Your task to perform on an android device: Search for Italian restaurants on Maps Image 0: 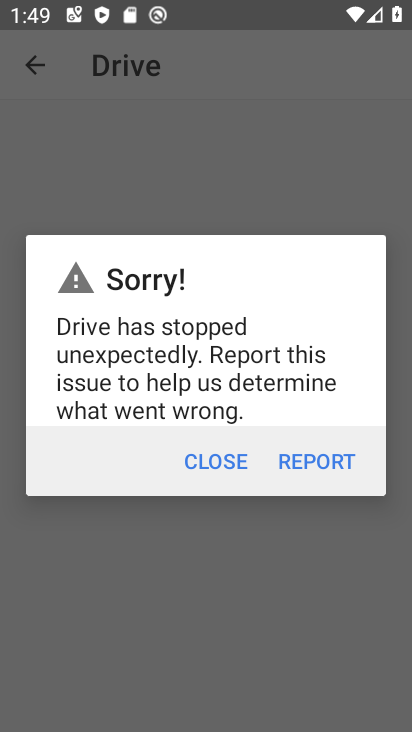
Step 0: press home button
Your task to perform on an android device: Search for Italian restaurants on Maps Image 1: 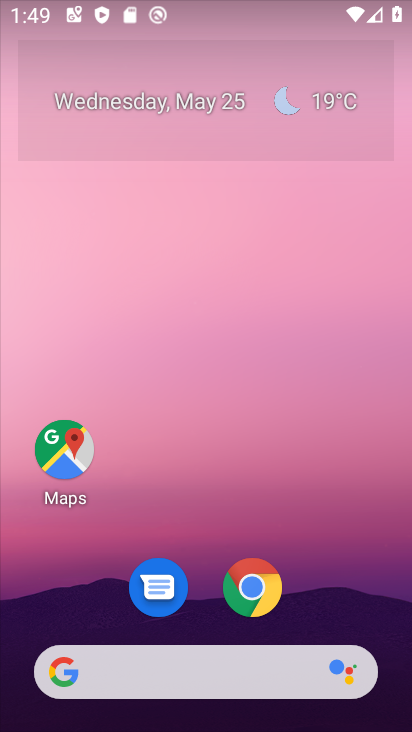
Step 1: click (73, 452)
Your task to perform on an android device: Search for Italian restaurants on Maps Image 2: 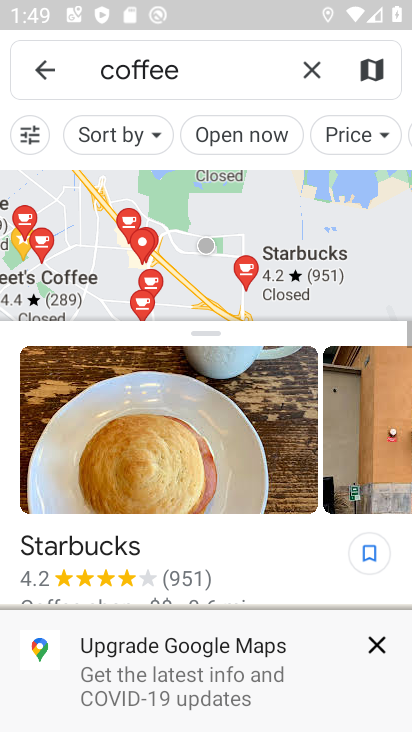
Step 2: click (303, 78)
Your task to perform on an android device: Search for Italian restaurants on Maps Image 3: 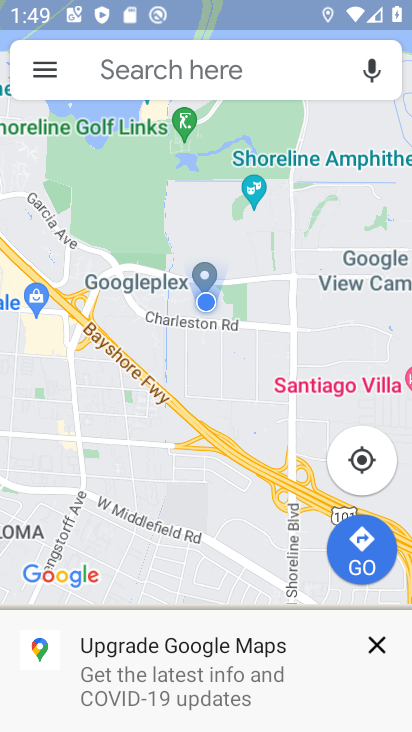
Step 3: click (208, 89)
Your task to perform on an android device: Search for Italian restaurants on Maps Image 4: 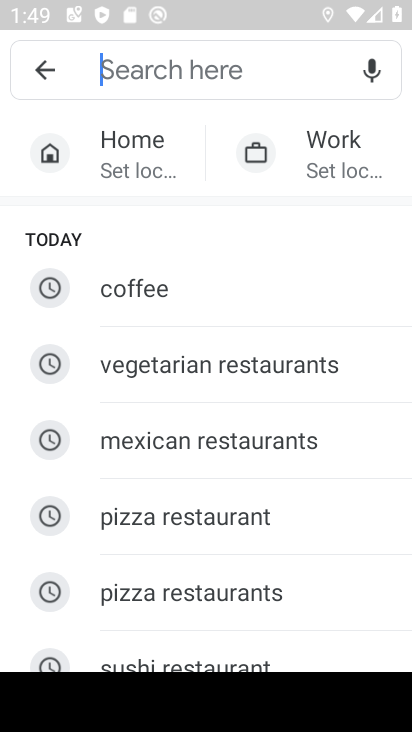
Step 4: drag from (230, 522) to (232, 252)
Your task to perform on an android device: Search for Italian restaurants on Maps Image 5: 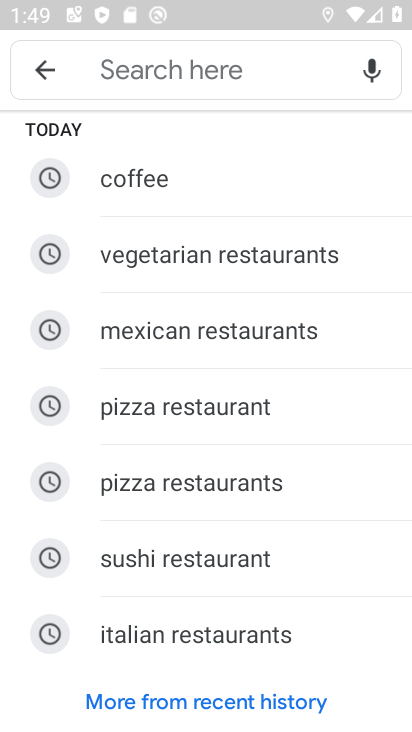
Step 5: click (216, 636)
Your task to perform on an android device: Search for Italian restaurants on Maps Image 6: 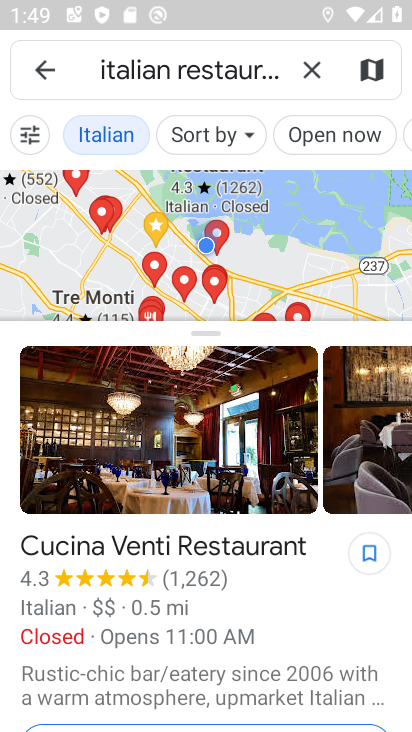
Step 6: task complete